Your task to perform on an android device: turn smart compose on in the gmail app Image 0: 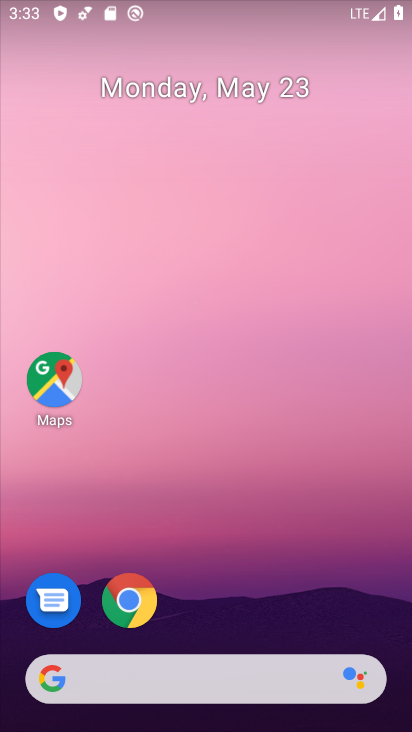
Step 0: drag from (241, 635) to (262, 0)
Your task to perform on an android device: turn smart compose on in the gmail app Image 1: 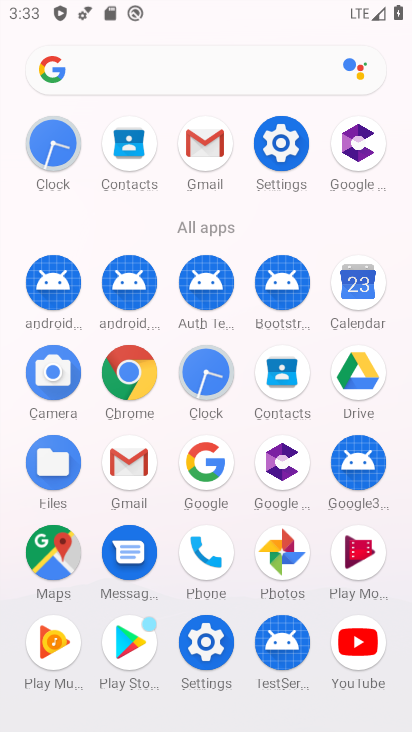
Step 1: click (209, 147)
Your task to perform on an android device: turn smart compose on in the gmail app Image 2: 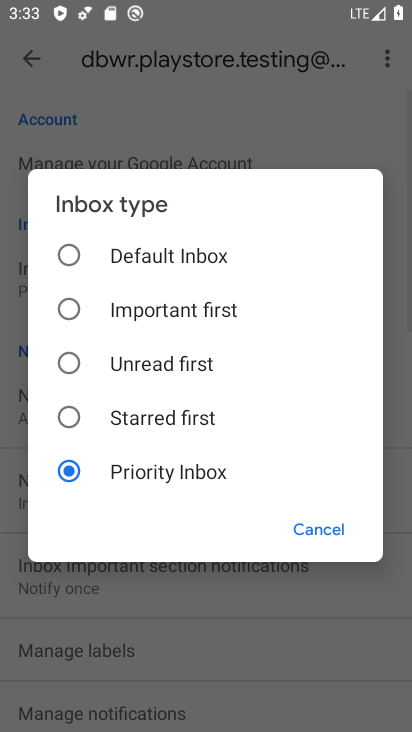
Step 2: click (328, 536)
Your task to perform on an android device: turn smart compose on in the gmail app Image 3: 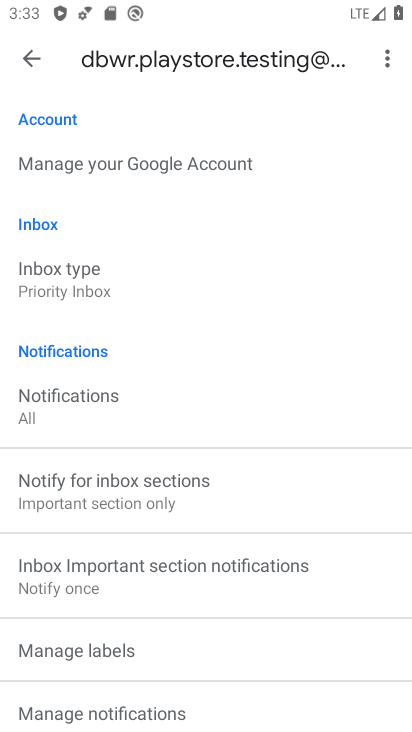
Step 3: task complete